Your task to perform on an android device: Open settings Image 0: 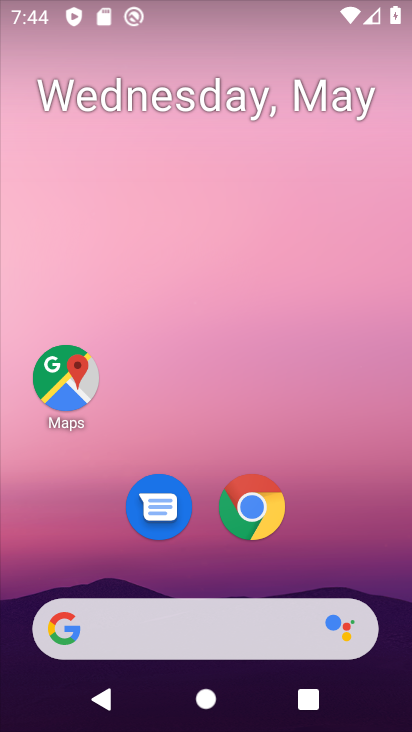
Step 0: drag from (291, 566) to (300, 206)
Your task to perform on an android device: Open settings Image 1: 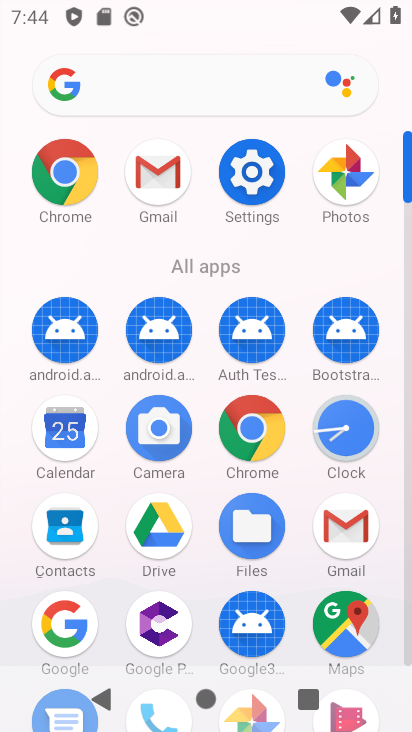
Step 1: click (242, 165)
Your task to perform on an android device: Open settings Image 2: 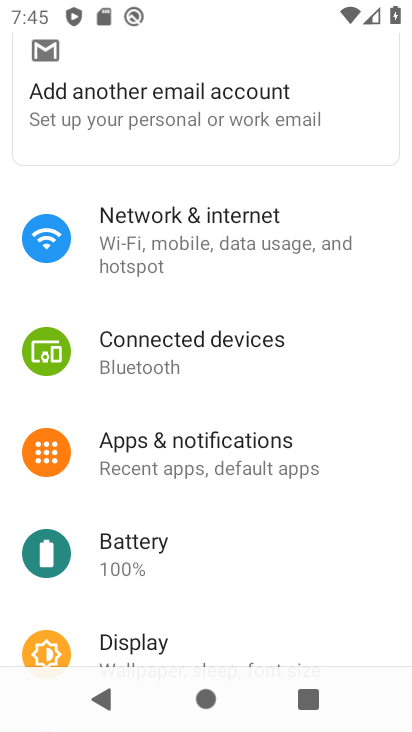
Step 2: task complete